Your task to perform on an android device: Open CNN.com Image 0: 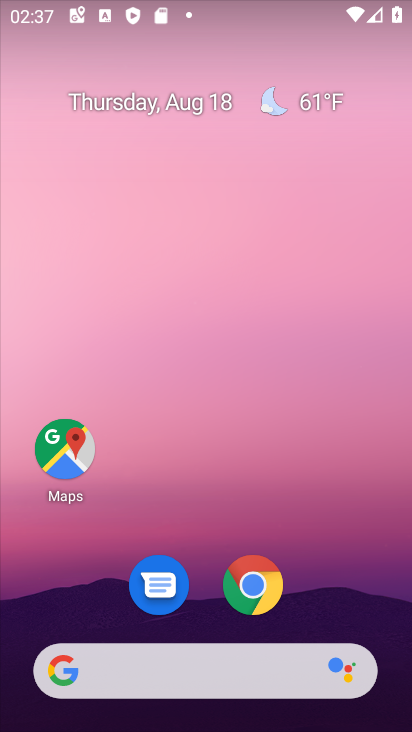
Step 0: click (233, 679)
Your task to perform on an android device: Open CNN.com Image 1: 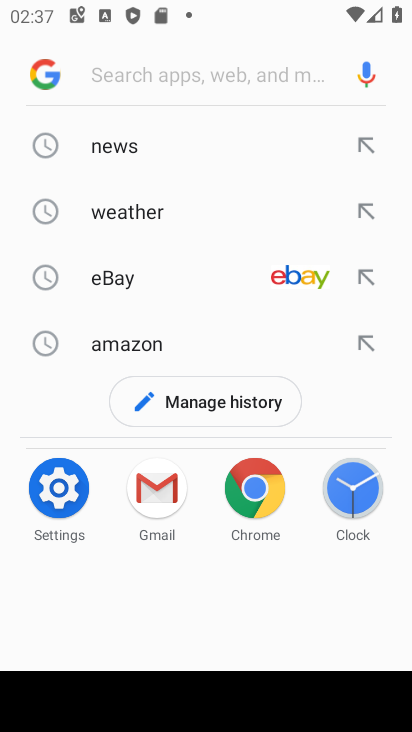
Step 1: type "cnn.com"
Your task to perform on an android device: Open CNN.com Image 2: 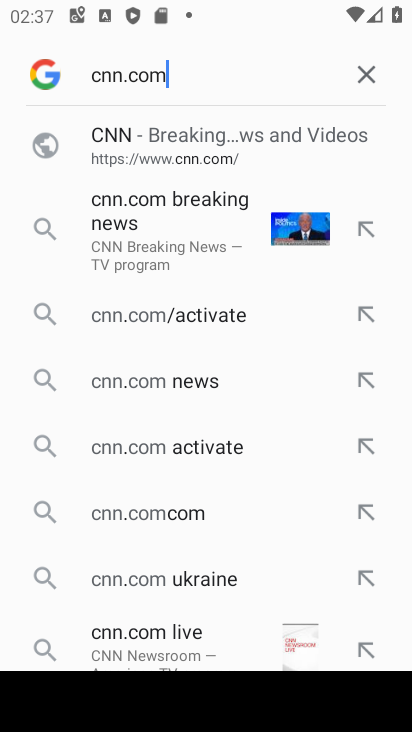
Step 2: click (209, 140)
Your task to perform on an android device: Open CNN.com Image 3: 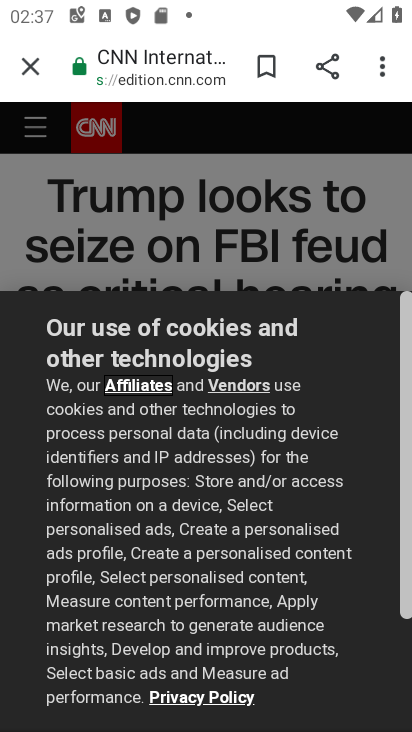
Step 3: drag from (206, 639) to (247, 170)
Your task to perform on an android device: Open CNN.com Image 4: 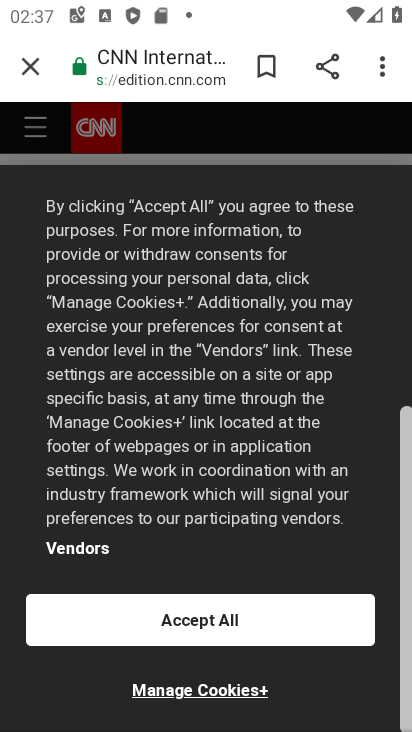
Step 4: click (260, 620)
Your task to perform on an android device: Open CNN.com Image 5: 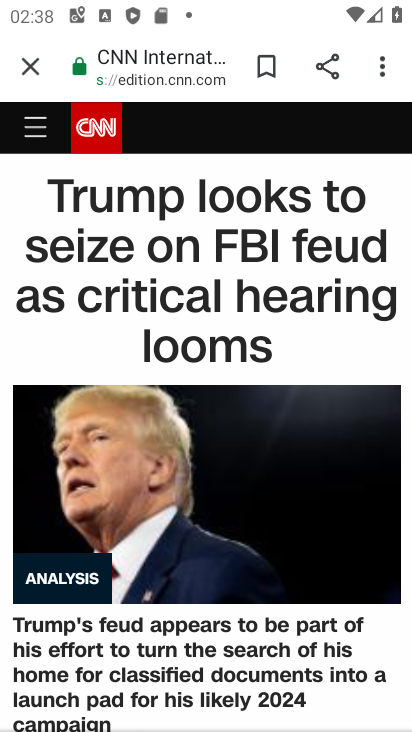
Step 5: task complete